Your task to perform on an android device: Go to Android settings Image 0: 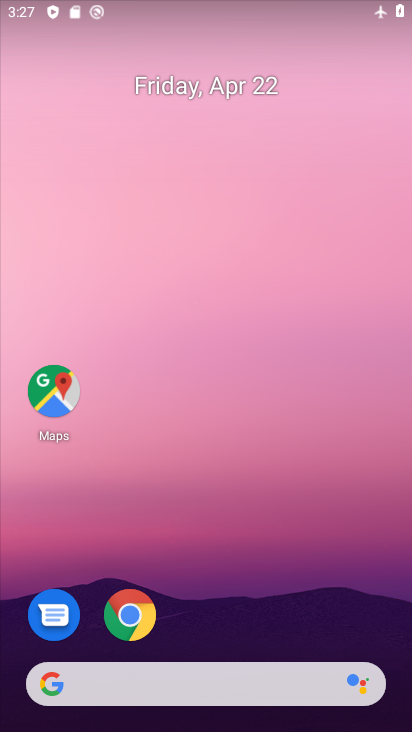
Step 0: drag from (203, 496) to (237, 182)
Your task to perform on an android device: Go to Android settings Image 1: 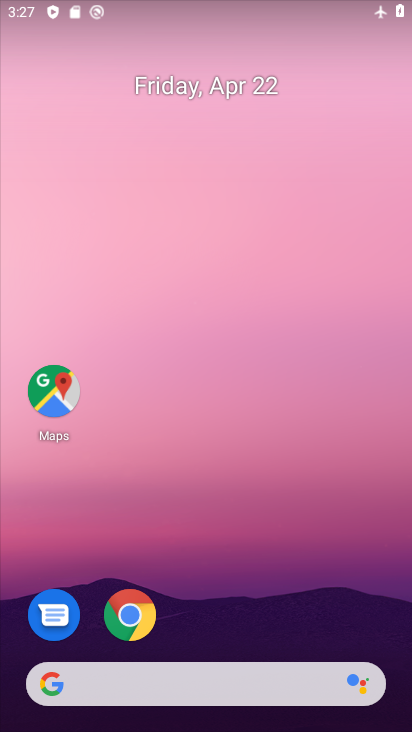
Step 1: drag from (243, 486) to (284, 56)
Your task to perform on an android device: Go to Android settings Image 2: 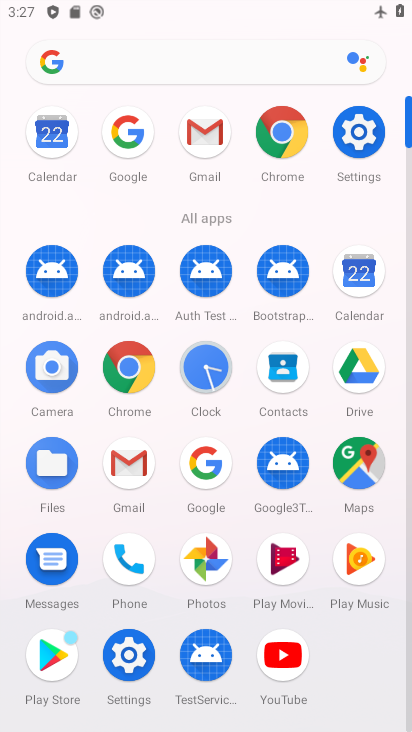
Step 2: click (363, 141)
Your task to perform on an android device: Go to Android settings Image 3: 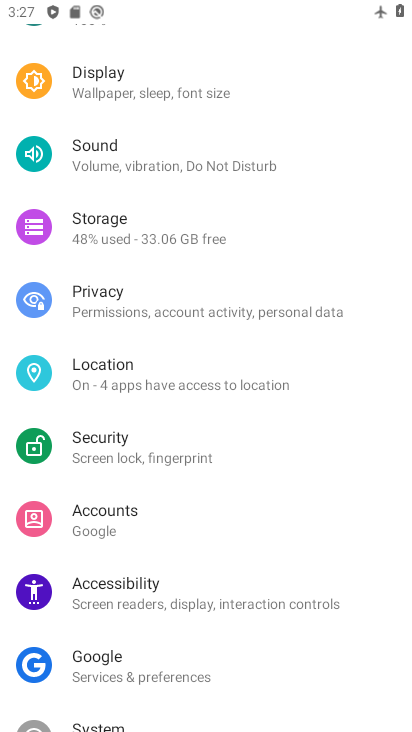
Step 3: task complete